Your task to perform on an android device: Open internet settings Image 0: 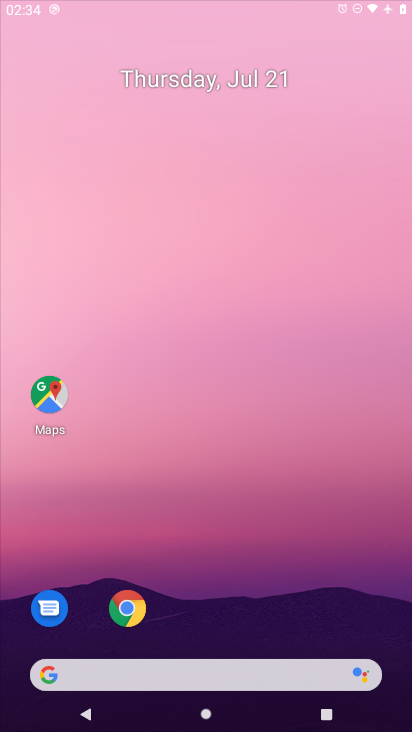
Step 0: press home button
Your task to perform on an android device: Open internet settings Image 1: 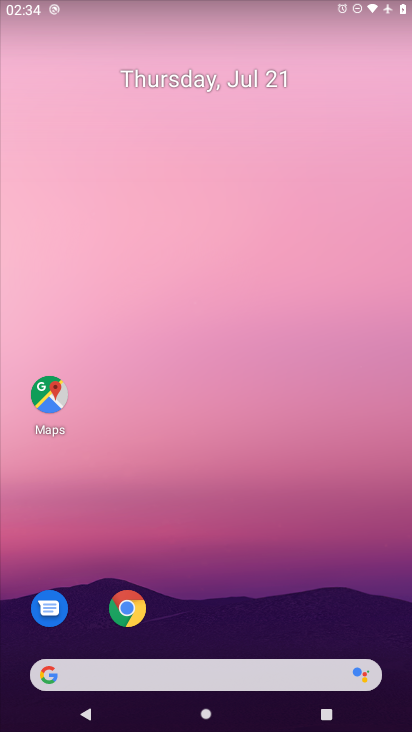
Step 1: drag from (223, 635) to (249, 0)
Your task to perform on an android device: Open internet settings Image 2: 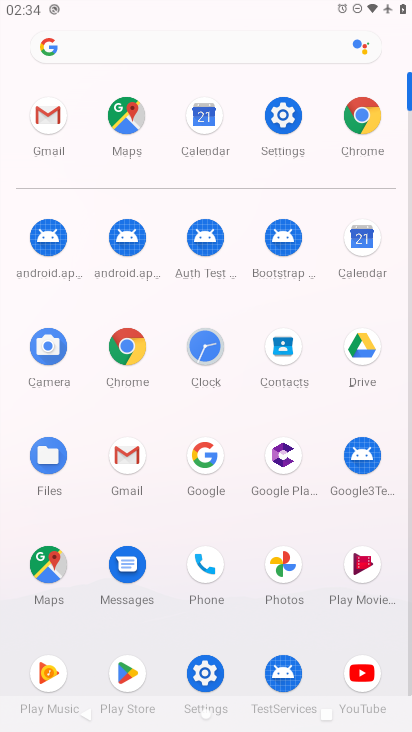
Step 2: click (282, 127)
Your task to perform on an android device: Open internet settings Image 3: 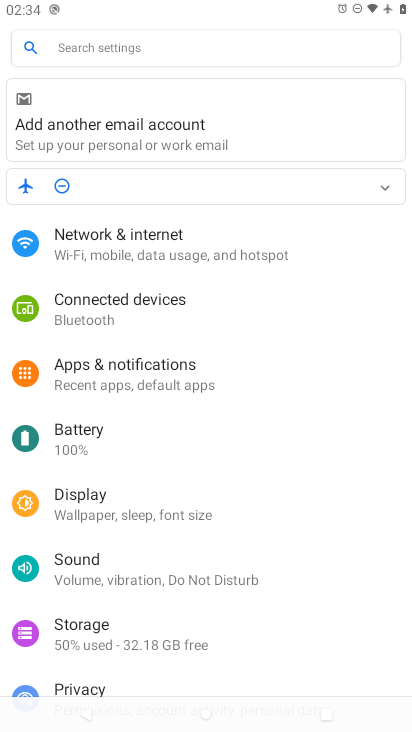
Step 3: click (137, 241)
Your task to perform on an android device: Open internet settings Image 4: 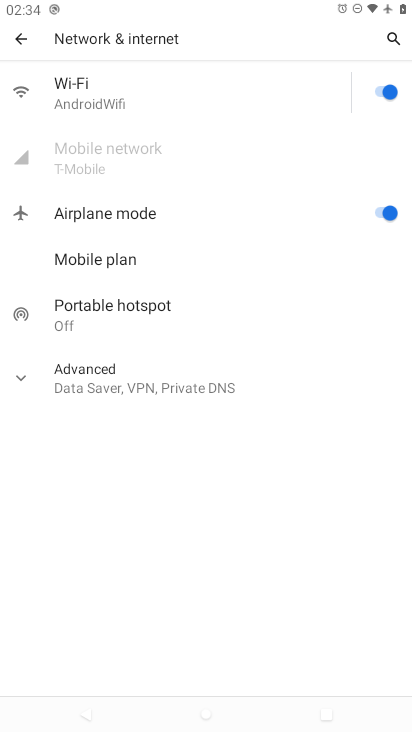
Step 4: task complete